Your task to perform on an android device: Show the shopping cart on target. Search for jbl flip 4 on target, select the first entry, add it to the cart, then select checkout. Image 0: 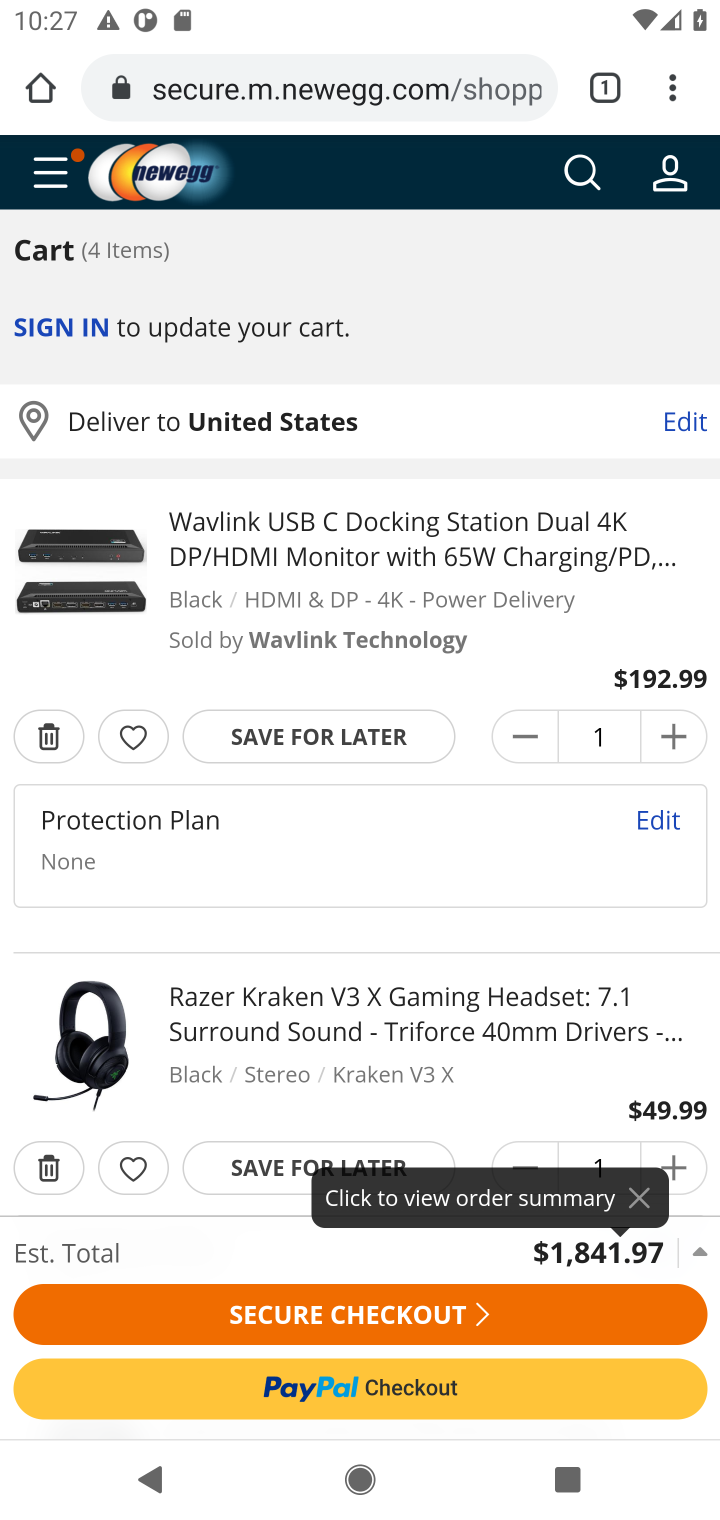
Step 0: press home button
Your task to perform on an android device: Show the shopping cart on target. Search for jbl flip 4 on target, select the first entry, add it to the cart, then select checkout. Image 1: 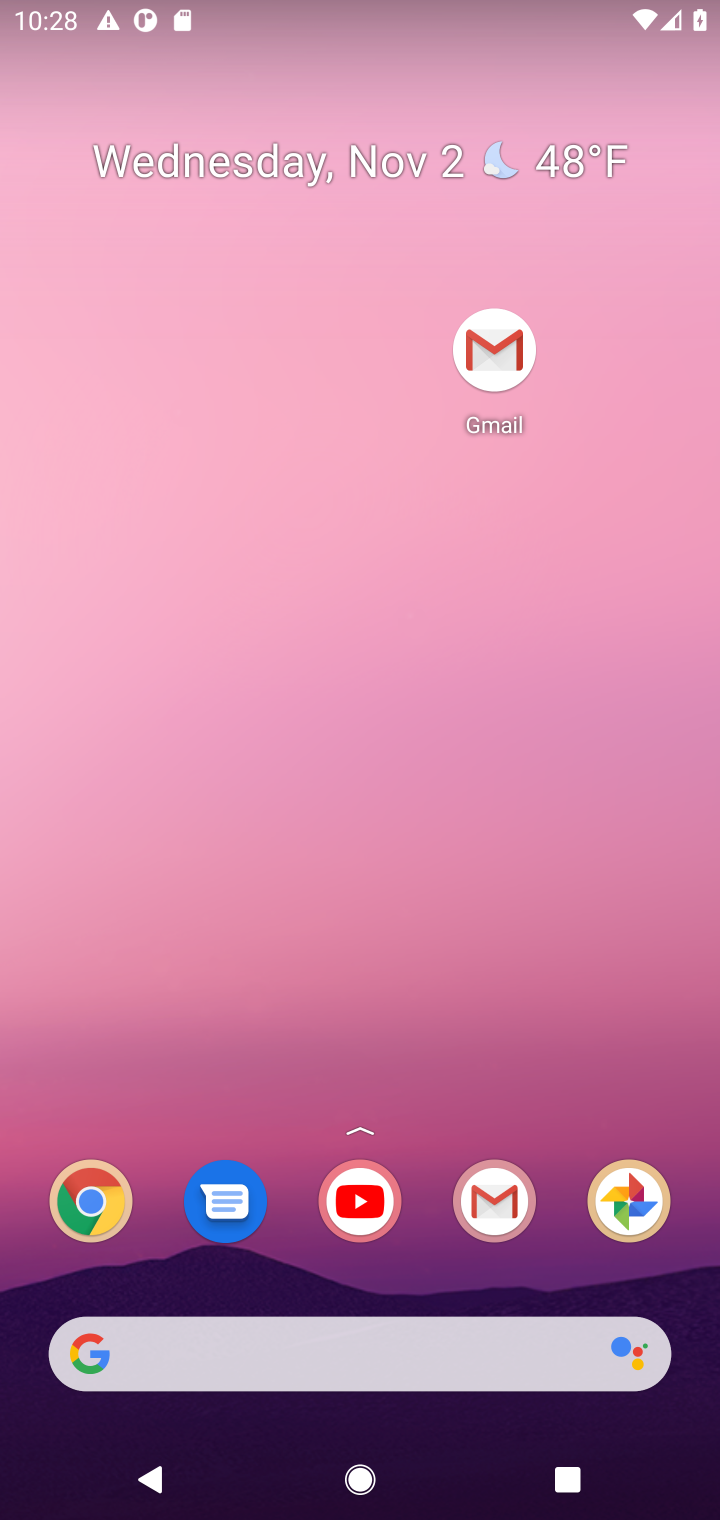
Step 1: drag from (430, 1285) to (348, 255)
Your task to perform on an android device: Show the shopping cart on target. Search for jbl flip 4 on target, select the first entry, add it to the cart, then select checkout. Image 2: 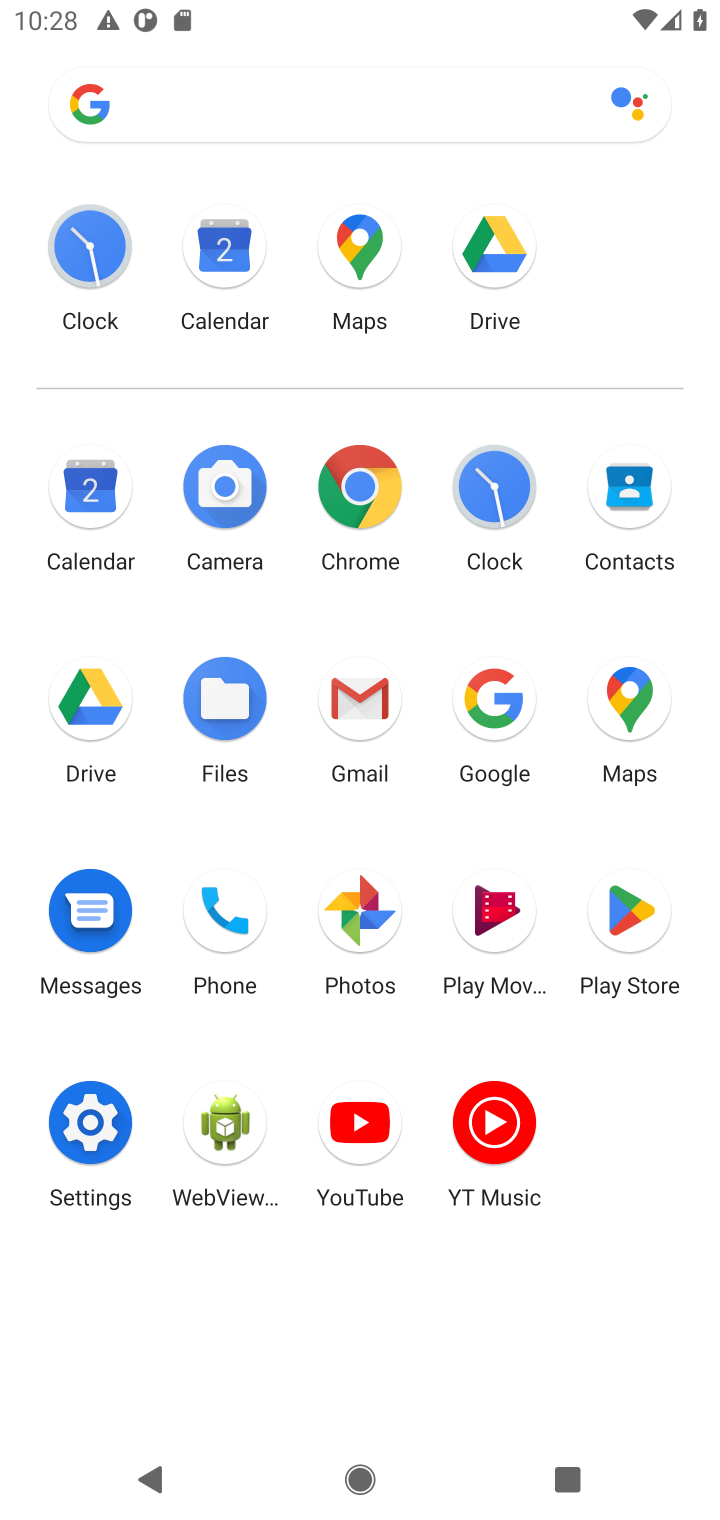
Step 2: click (371, 478)
Your task to perform on an android device: Show the shopping cart on target. Search for jbl flip 4 on target, select the first entry, add it to the cart, then select checkout. Image 3: 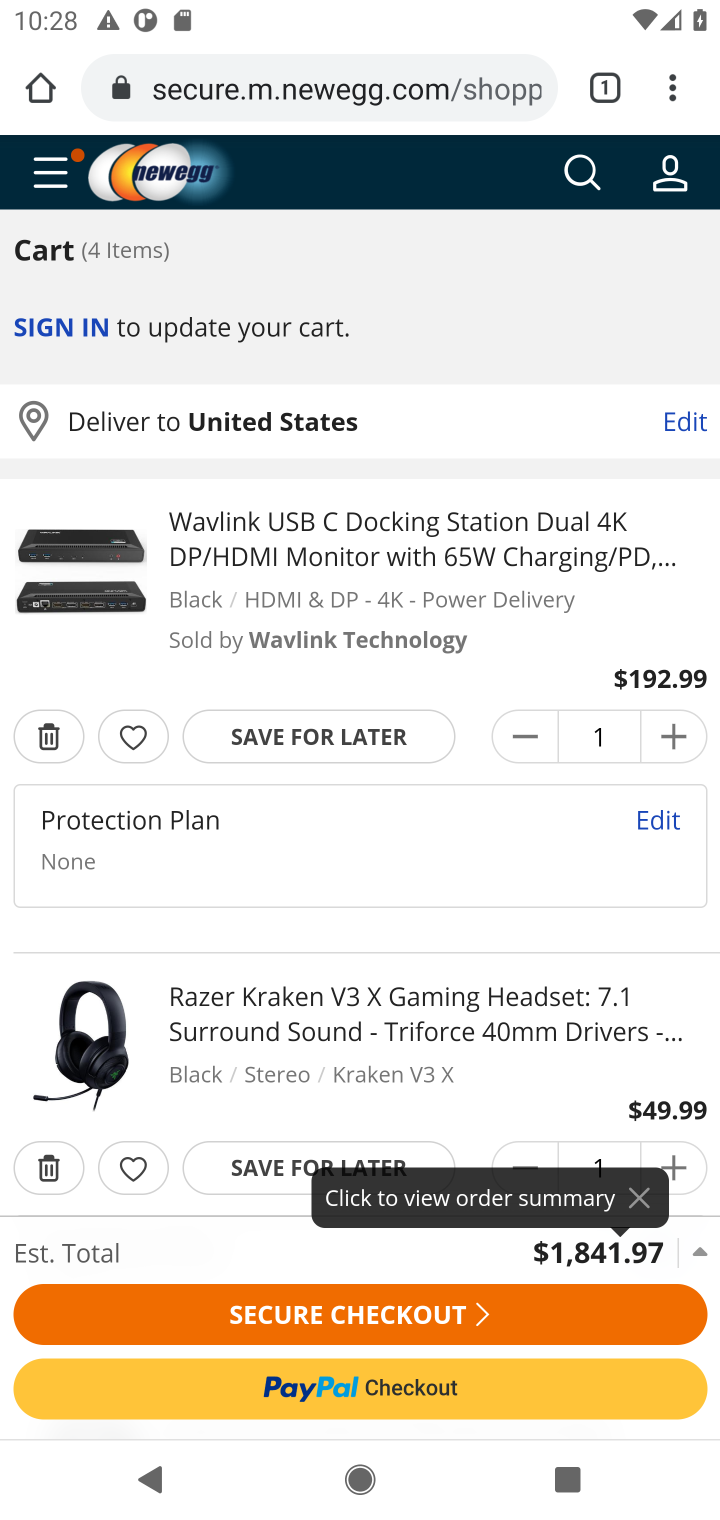
Step 3: click (355, 86)
Your task to perform on an android device: Show the shopping cart on target. Search for jbl flip 4 on target, select the first entry, add it to the cart, then select checkout. Image 4: 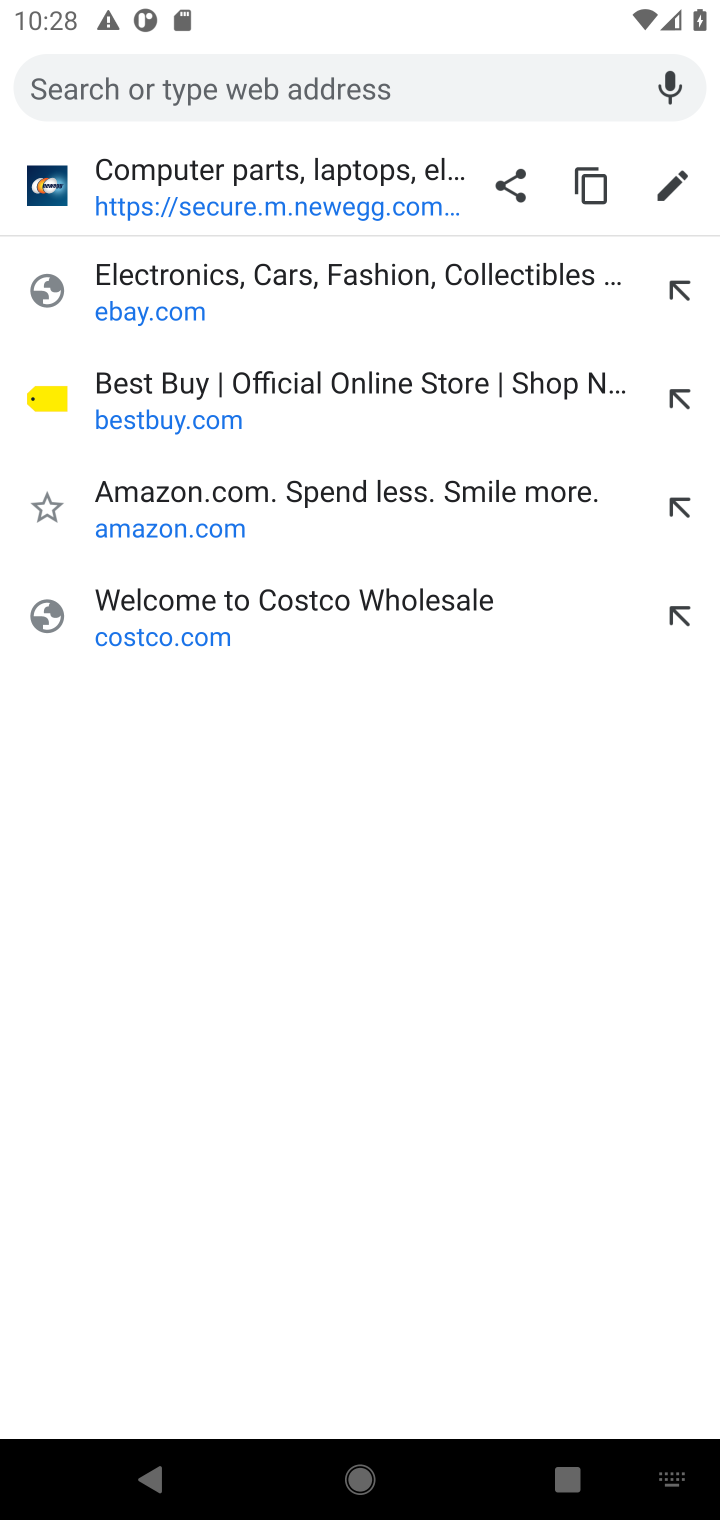
Step 4: type "target.com"
Your task to perform on an android device: Show the shopping cart on target. Search for jbl flip 4 on target, select the first entry, add it to the cart, then select checkout. Image 5: 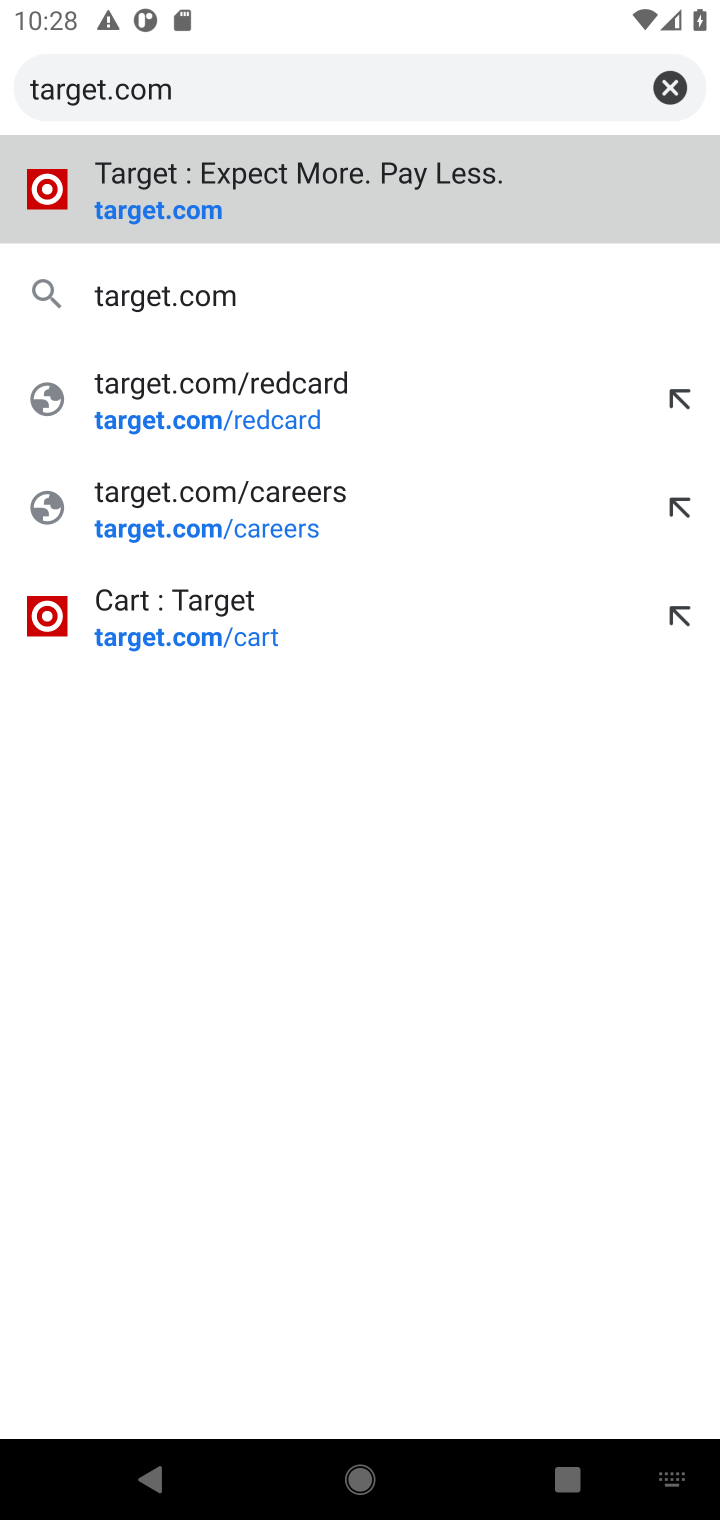
Step 5: press enter
Your task to perform on an android device: Show the shopping cart on target. Search for jbl flip 4 on target, select the first entry, add it to the cart, then select checkout. Image 6: 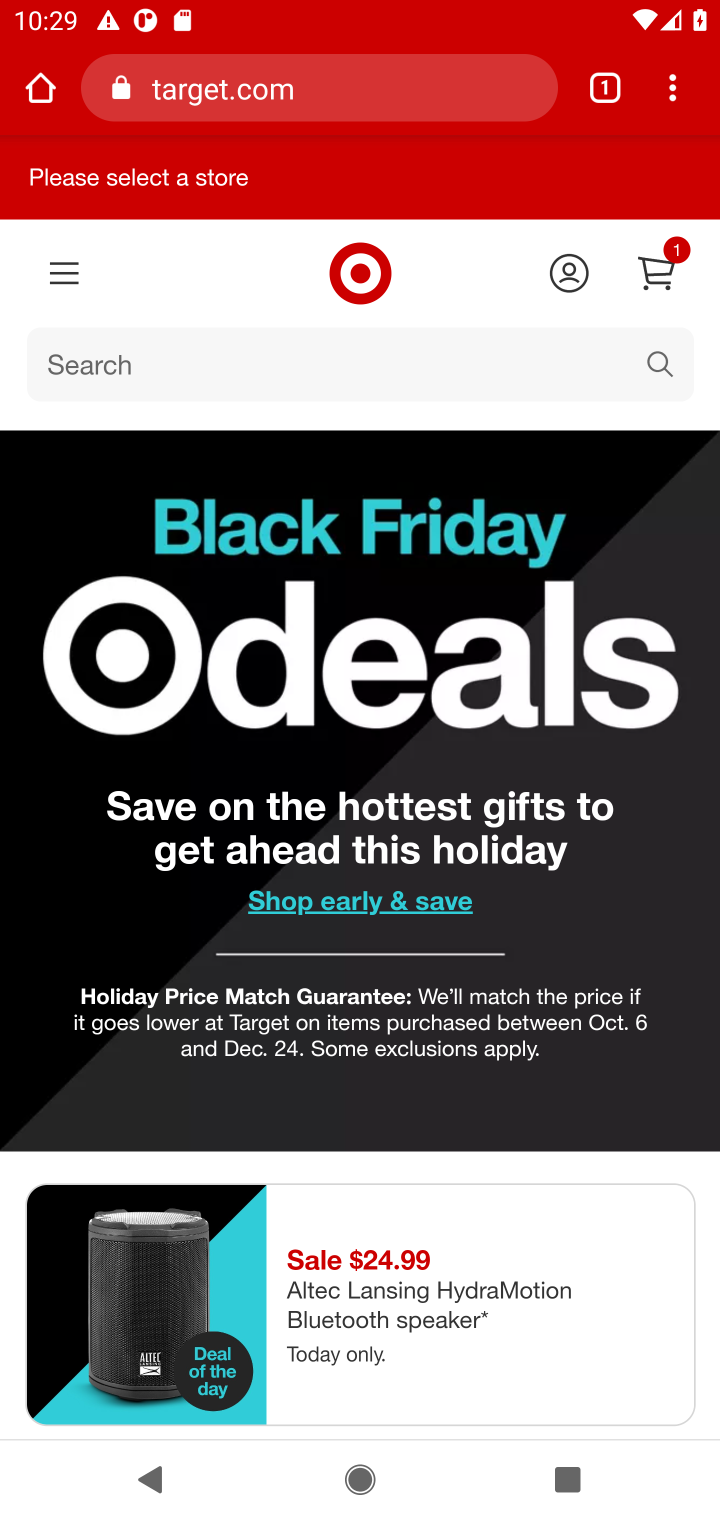
Step 6: drag from (602, 1263) to (496, 480)
Your task to perform on an android device: Show the shopping cart on target. Search for jbl flip 4 on target, select the first entry, add it to the cart, then select checkout. Image 7: 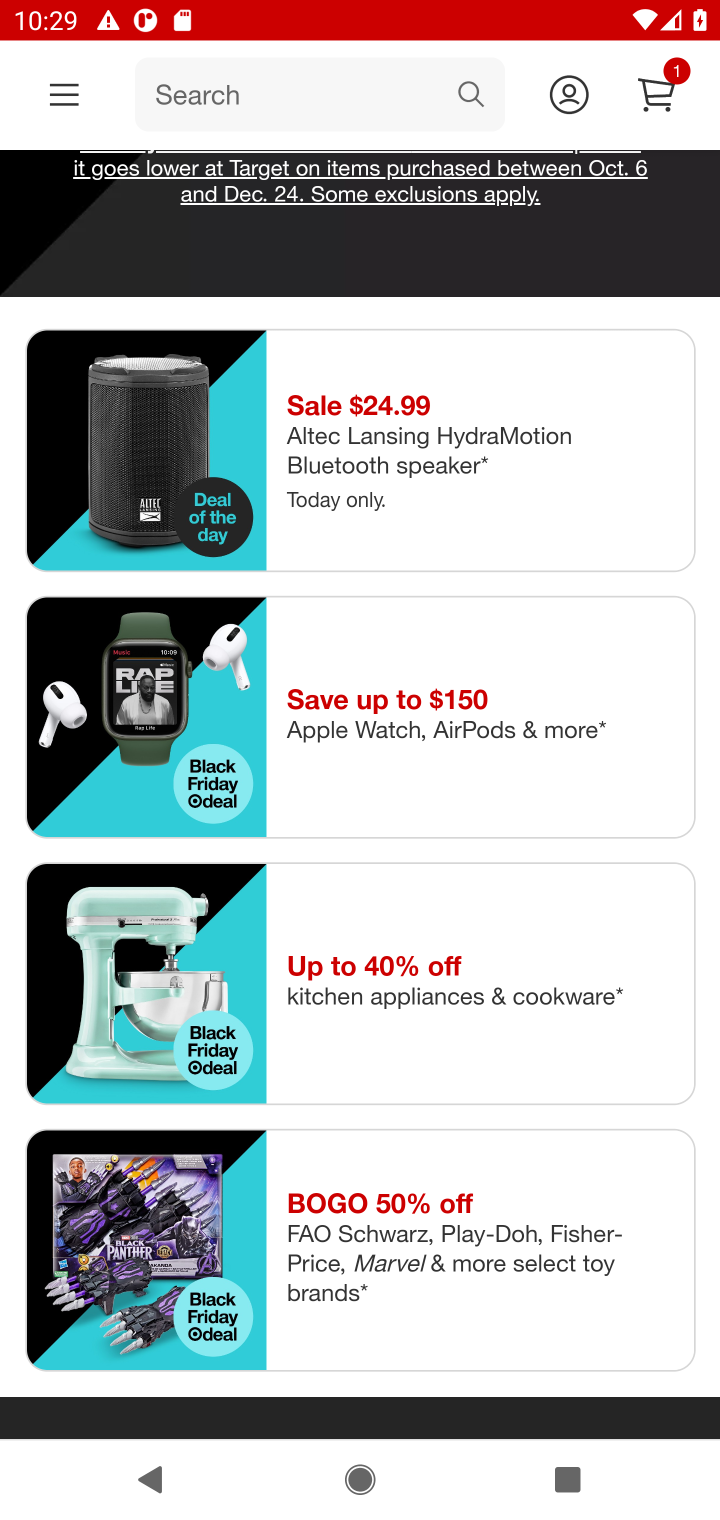
Step 7: drag from (558, 1236) to (522, 346)
Your task to perform on an android device: Show the shopping cart on target. Search for jbl flip 4 on target, select the first entry, add it to the cart, then select checkout. Image 8: 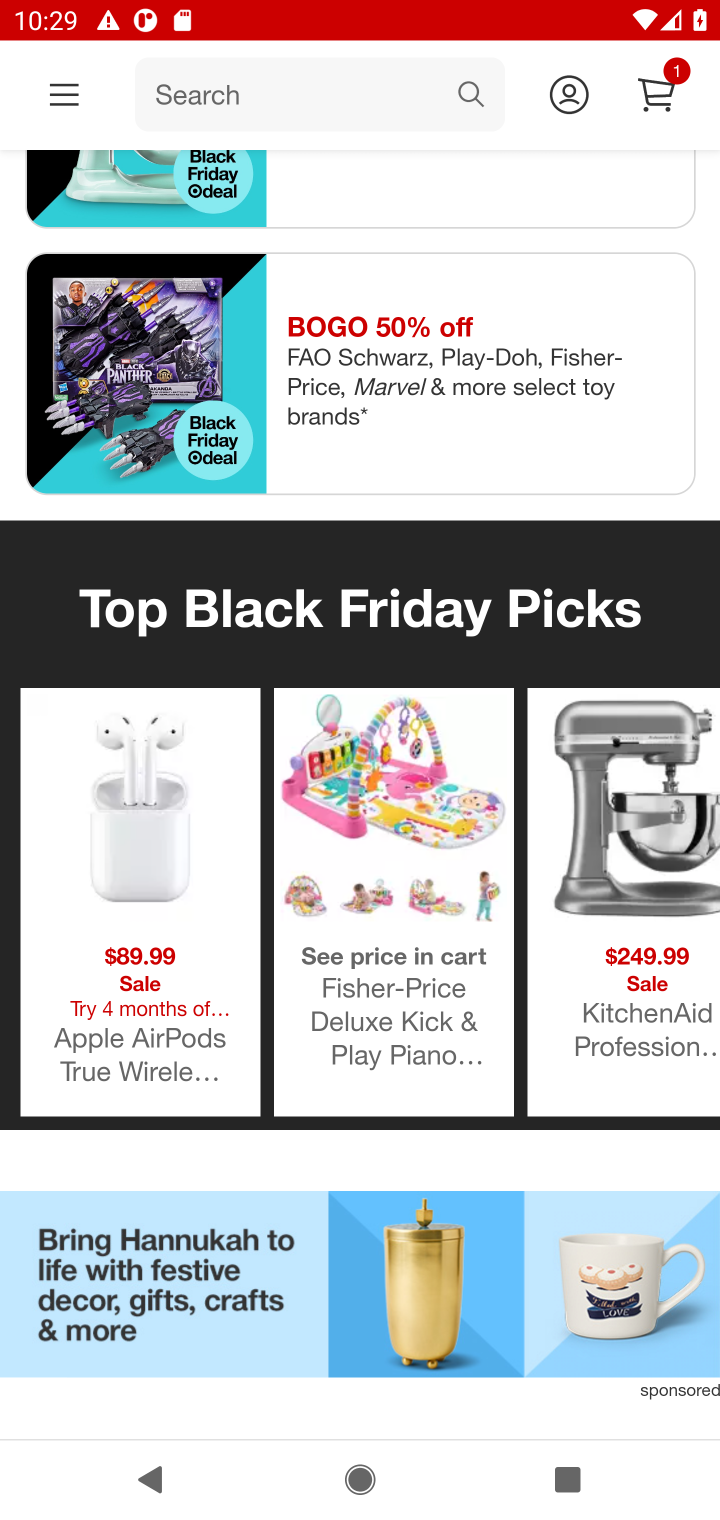
Step 8: drag from (486, 1166) to (394, 549)
Your task to perform on an android device: Show the shopping cart on target. Search for jbl flip 4 on target, select the first entry, add it to the cart, then select checkout. Image 9: 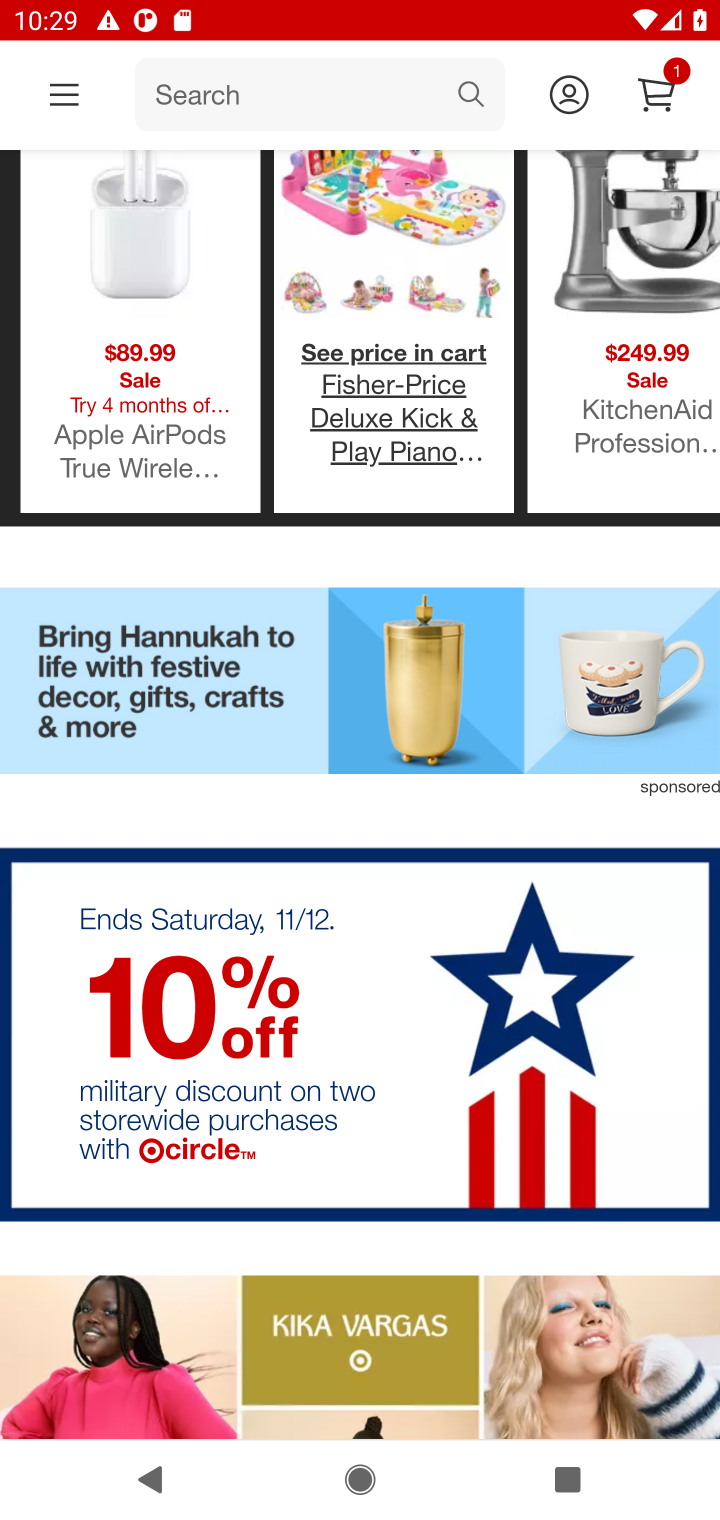
Step 9: drag from (428, 436) to (415, 1421)
Your task to perform on an android device: Show the shopping cart on target. Search for jbl flip 4 on target, select the first entry, add it to the cart, then select checkout. Image 10: 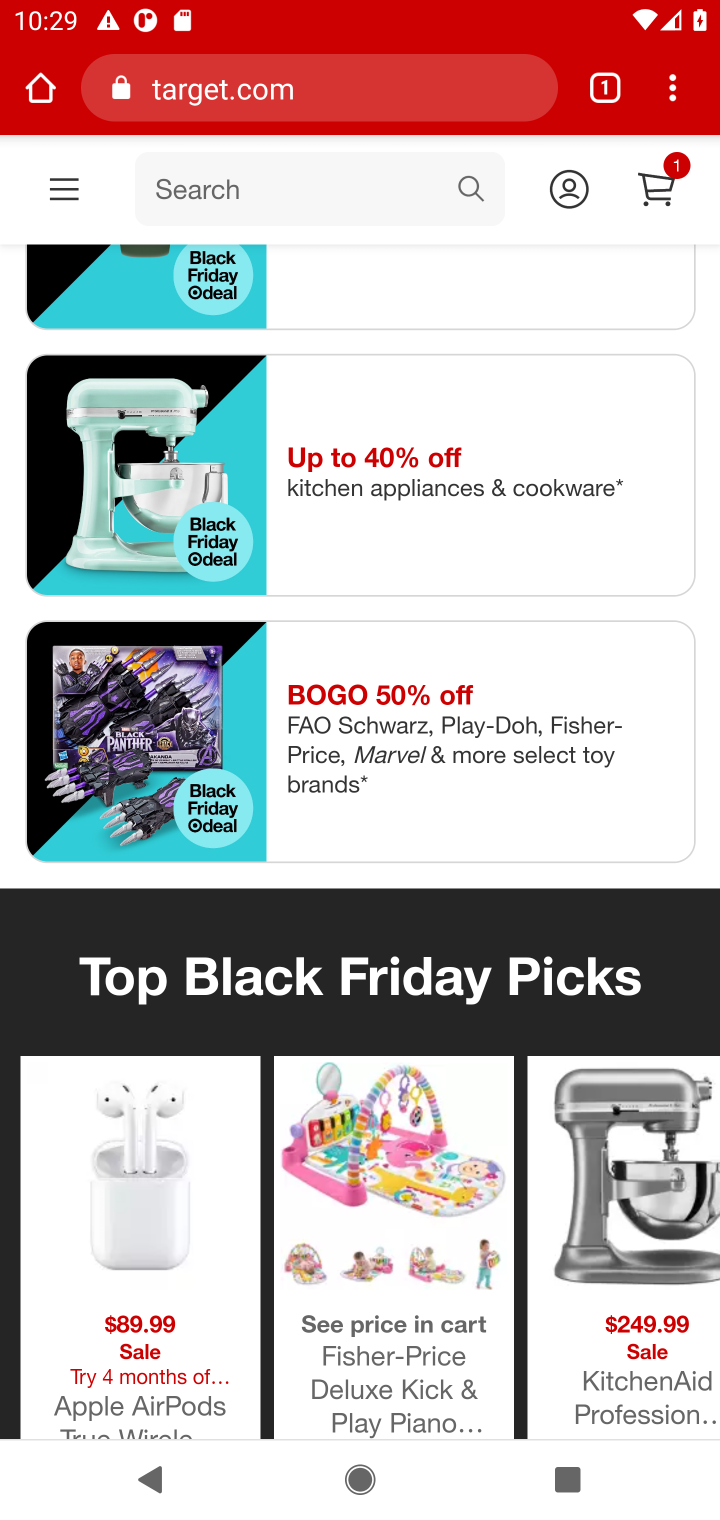
Step 10: click (316, 167)
Your task to perform on an android device: Show the shopping cart on target. Search for jbl flip 4 on target, select the first entry, add it to the cart, then select checkout. Image 11: 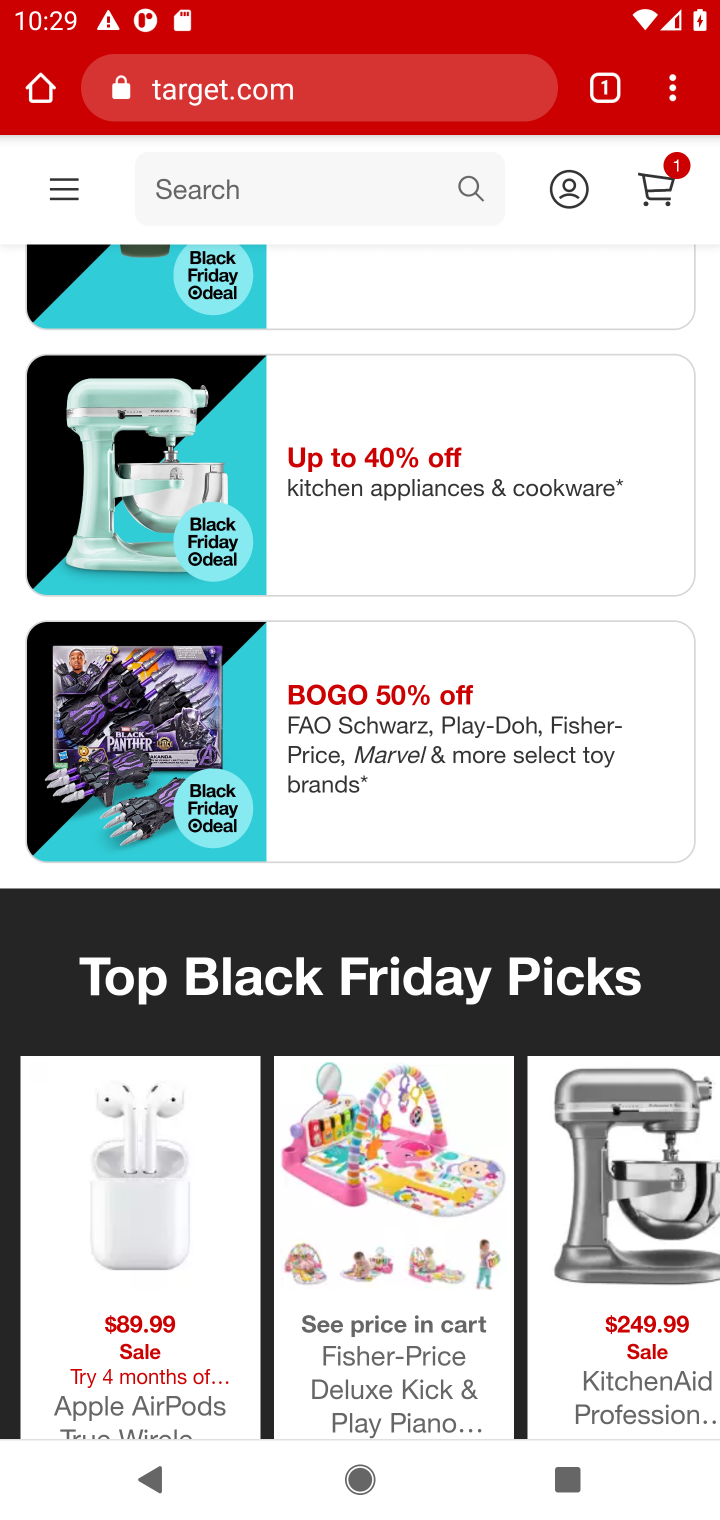
Step 11: click (352, 174)
Your task to perform on an android device: Show the shopping cart on target. Search for jbl flip 4 on target, select the first entry, add it to the cart, then select checkout. Image 12: 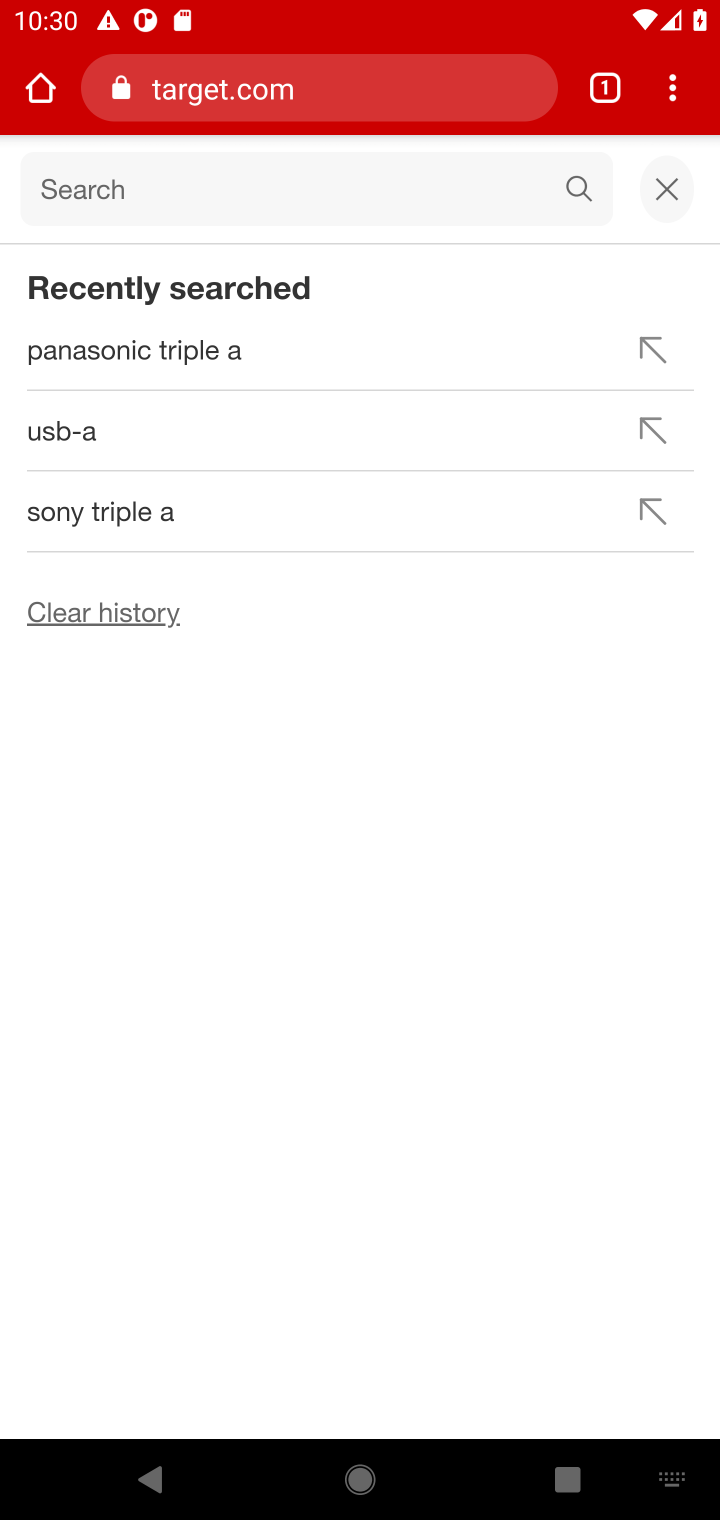
Step 12: type "jbl flip 4"
Your task to perform on an android device: Show the shopping cart on target. Search for jbl flip 4 on target, select the first entry, add it to the cart, then select checkout. Image 13: 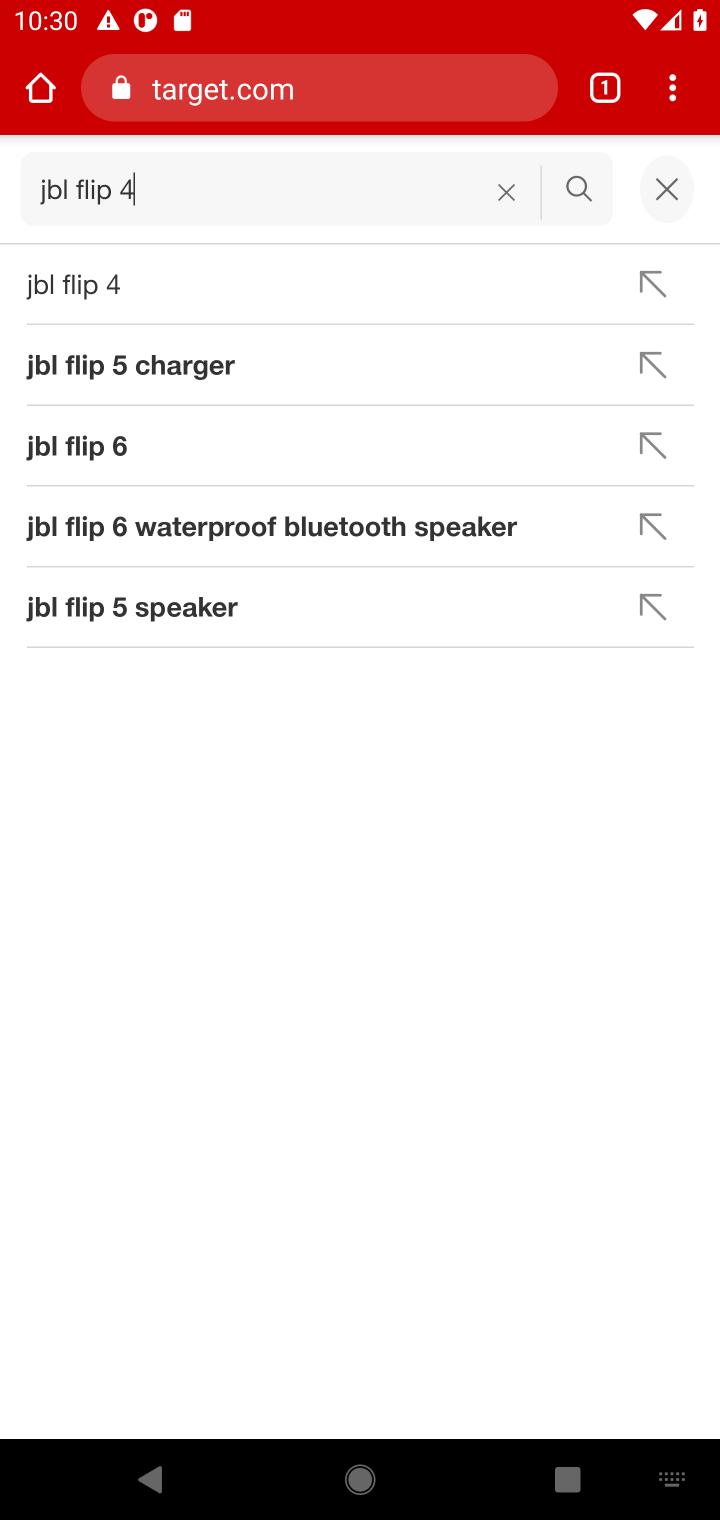
Step 13: press enter
Your task to perform on an android device: Show the shopping cart on target. Search for jbl flip 4 on target, select the first entry, add it to the cart, then select checkout. Image 14: 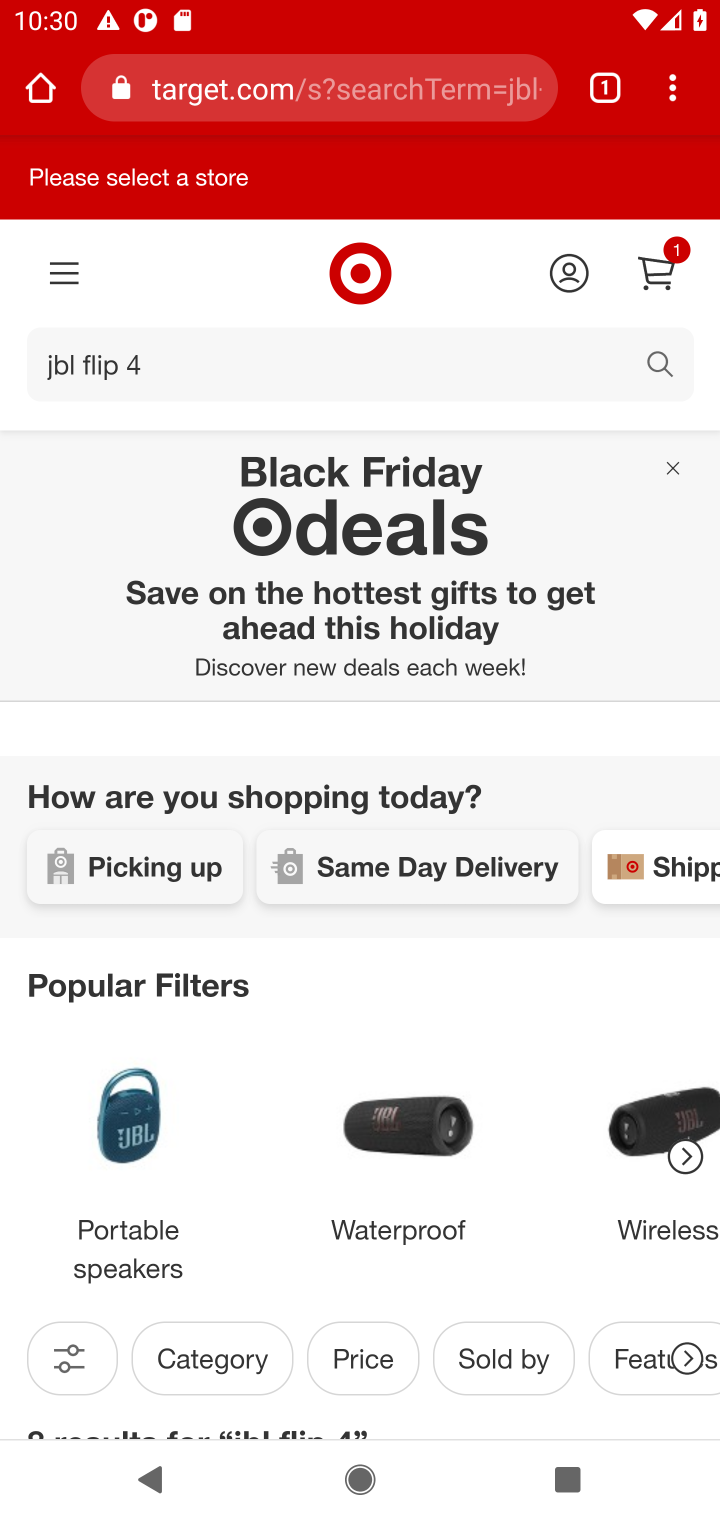
Step 14: drag from (465, 1326) to (361, 454)
Your task to perform on an android device: Show the shopping cart on target. Search for jbl flip 4 on target, select the first entry, add it to the cart, then select checkout. Image 15: 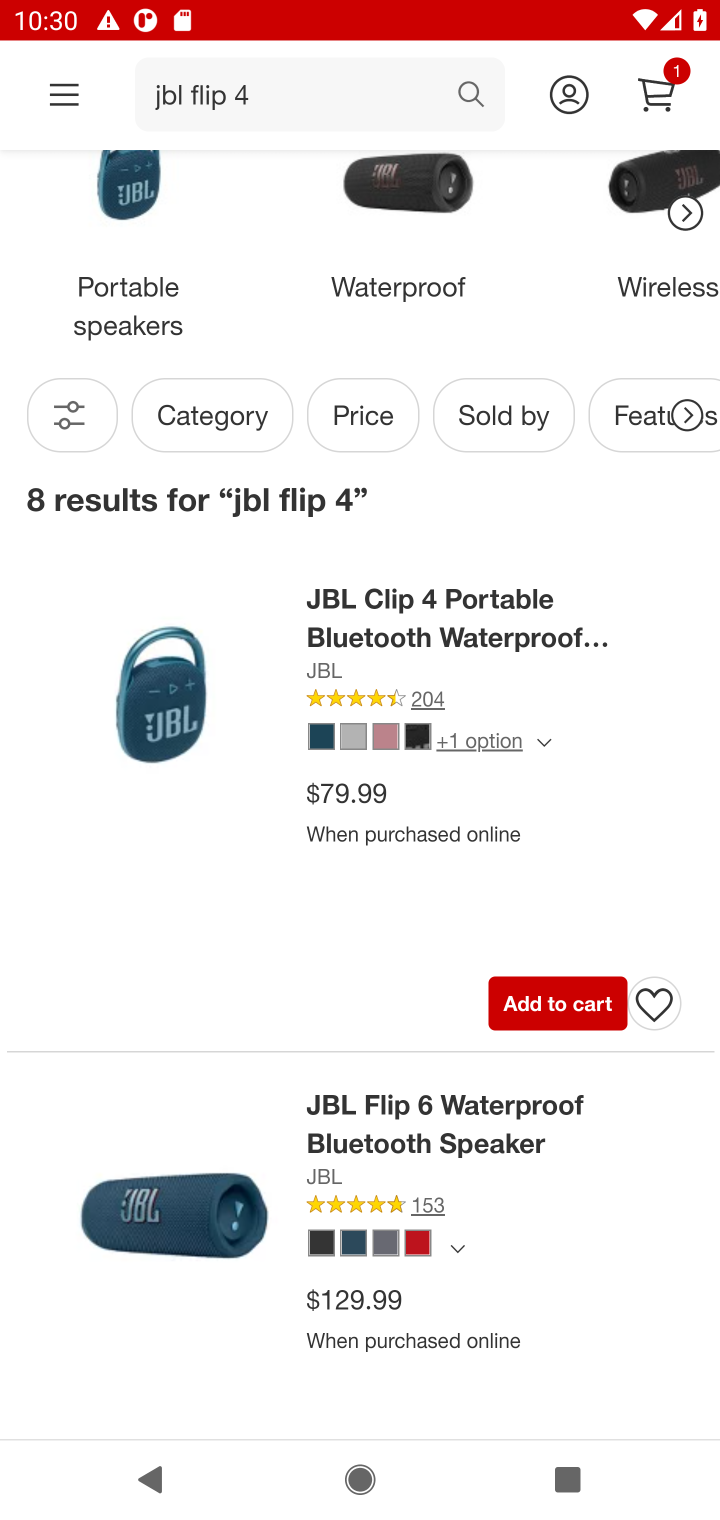
Step 15: drag from (350, 1057) to (391, 440)
Your task to perform on an android device: Show the shopping cart on target. Search for jbl flip 4 on target, select the first entry, add it to the cart, then select checkout. Image 16: 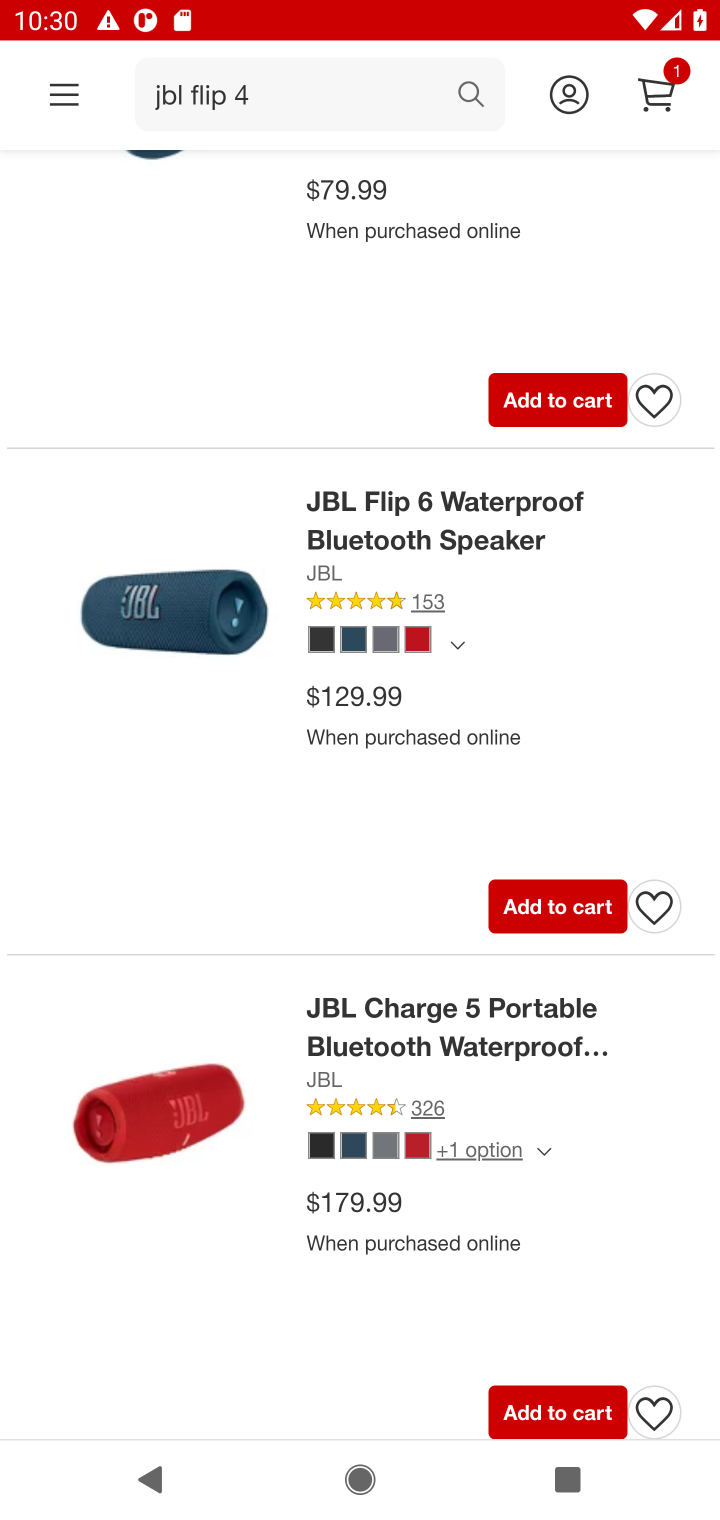
Step 16: drag from (568, 1184) to (520, 532)
Your task to perform on an android device: Show the shopping cart on target. Search for jbl flip 4 on target, select the first entry, add it to the cart, then select checkout. Image 17: 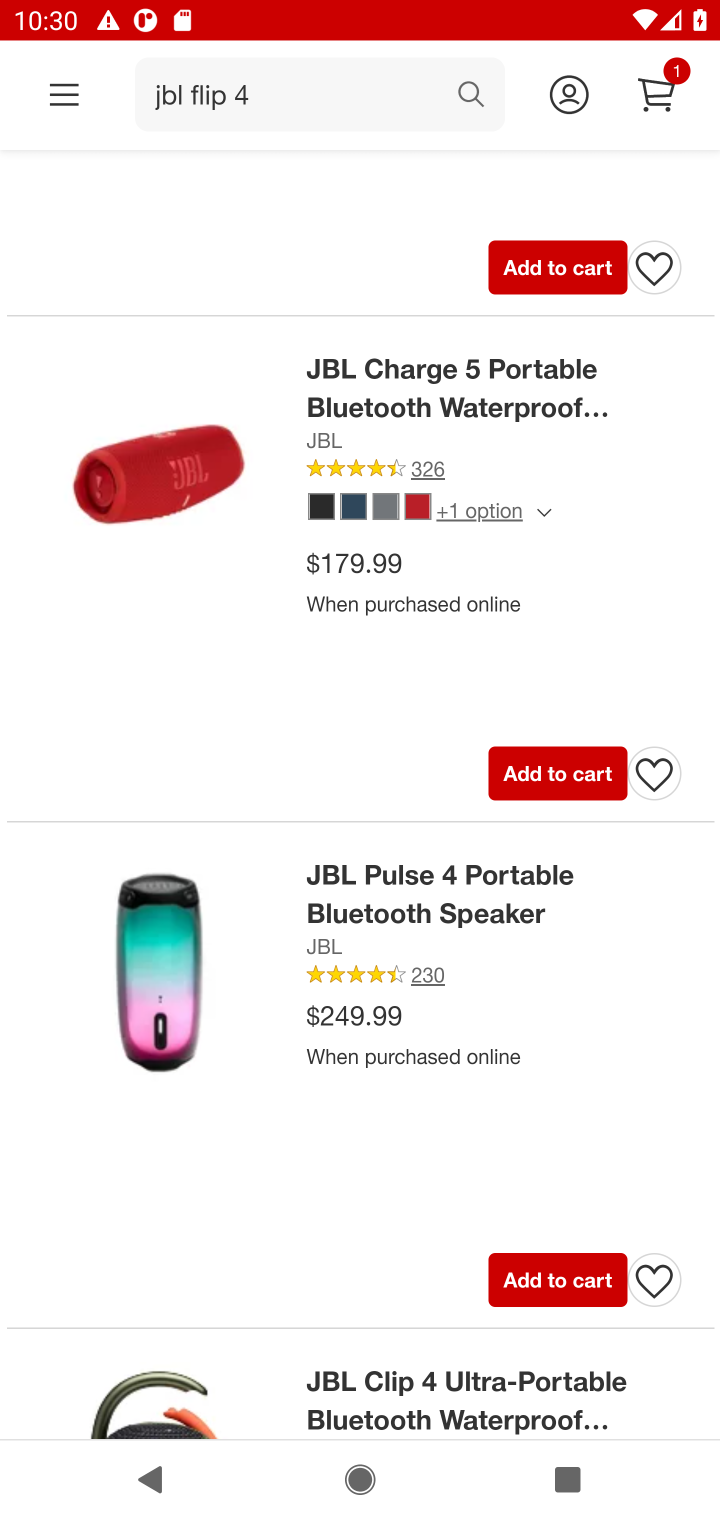
Step 17: drag from (344, 1105) to (346, 756)
Your task to perform on an android device: Show the shopping cart on target. Search for jbl flip 4 on target, select the first entry, add it to the cart, then select checkout. Image 18: 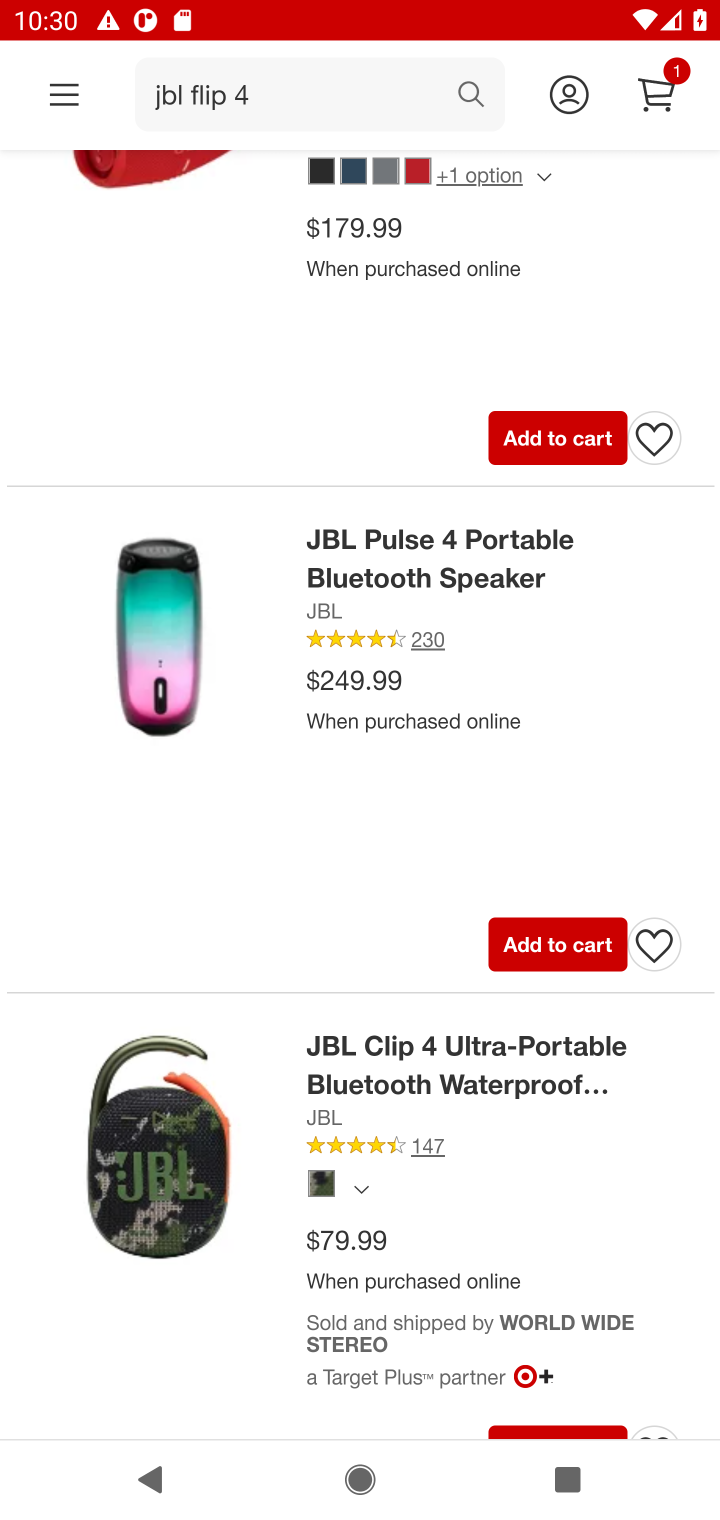
Step 18: click (393, 1076)
Your task to perform on an android device: Show the shopping cart on target. Search for jbl flip 4 on target, select the first entry, add it to the cart, then select checkout. Image 19: 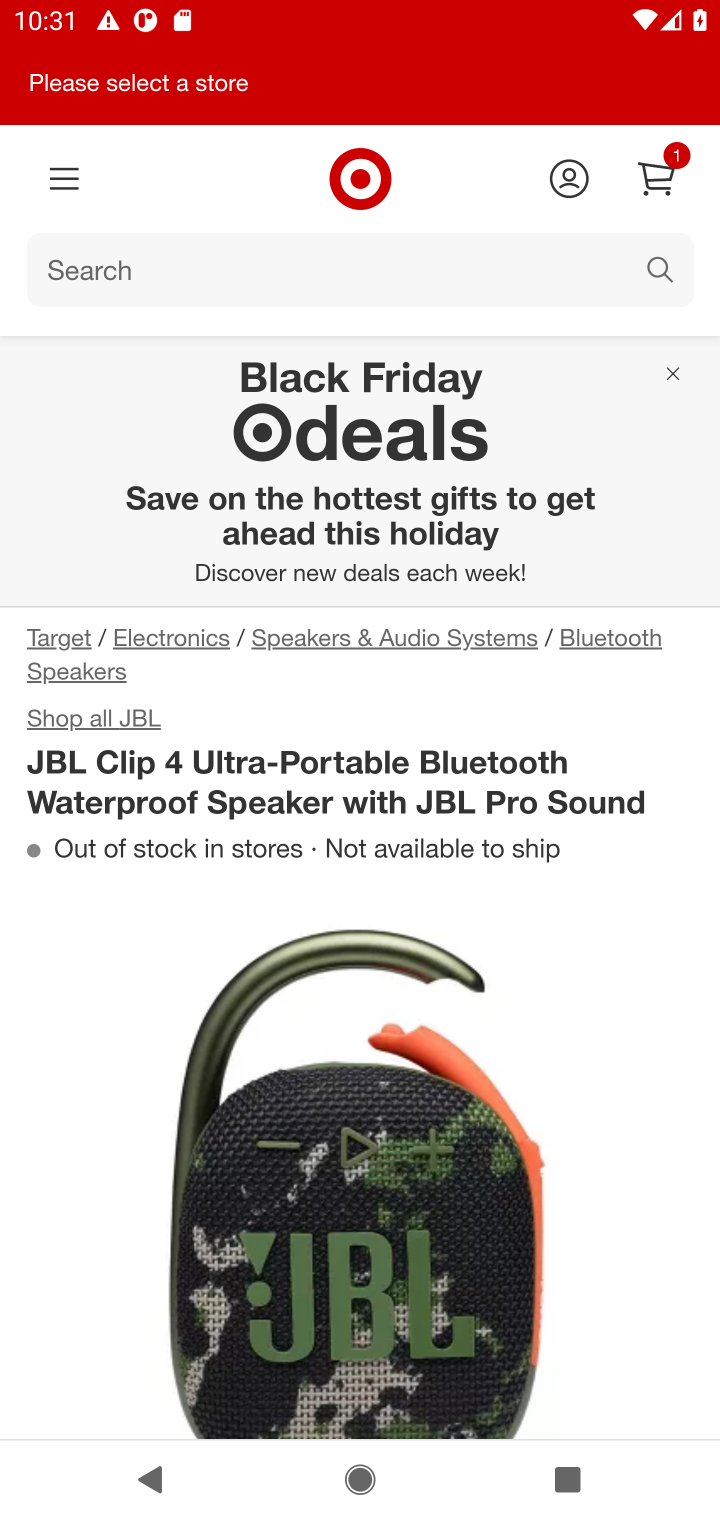
Step 19: drag from (377, 1164) to (420, 328)
Your task to perform on an android device: Show the shopping cart on target. Search for jbl flip 4 on target, select the first entry, add it to the cart, then select checkout. Image 20: 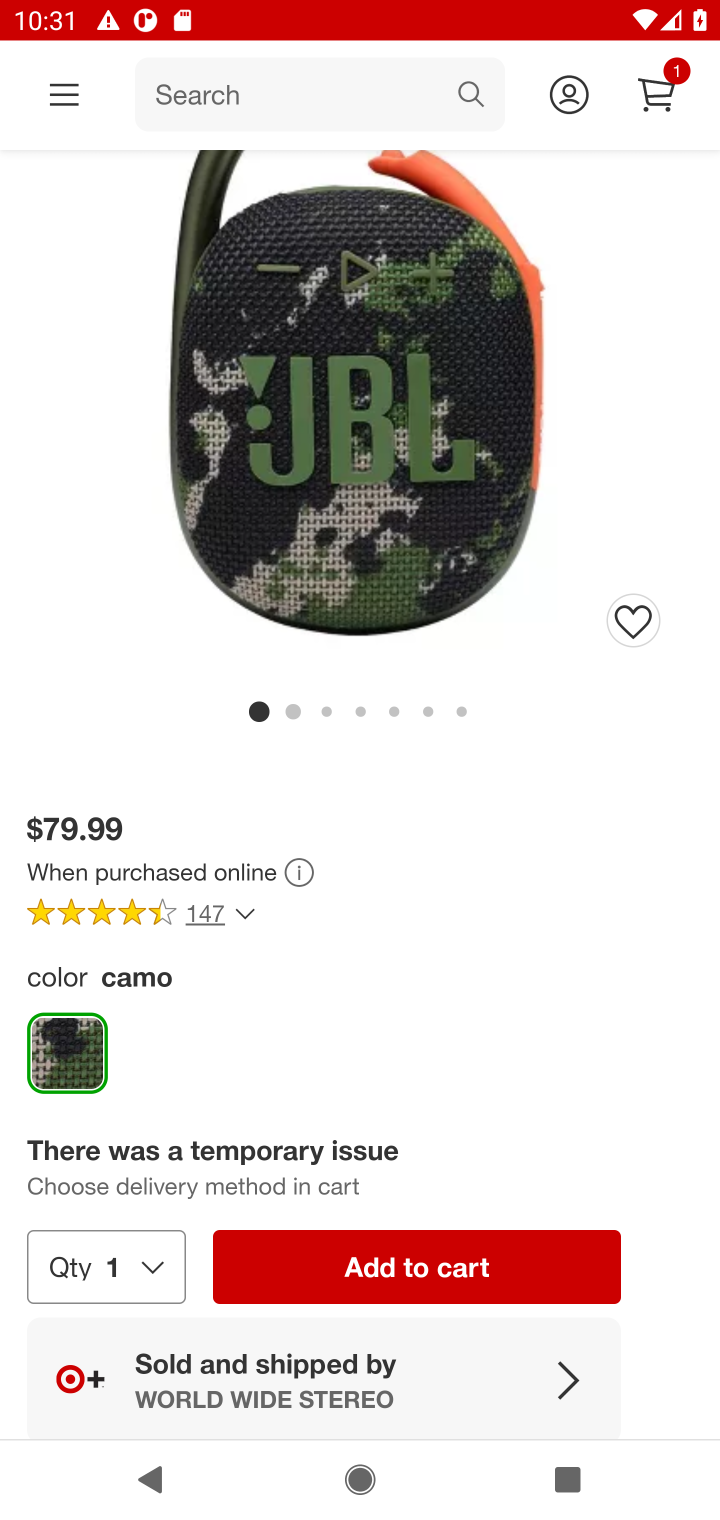
Step 20: click (449, 1263)
Your task to perform on an android device: Show the shopping cart on target. Search for jbl flip 4 on target, select the first entry, add it to the cart, then select checkout. Image 21: 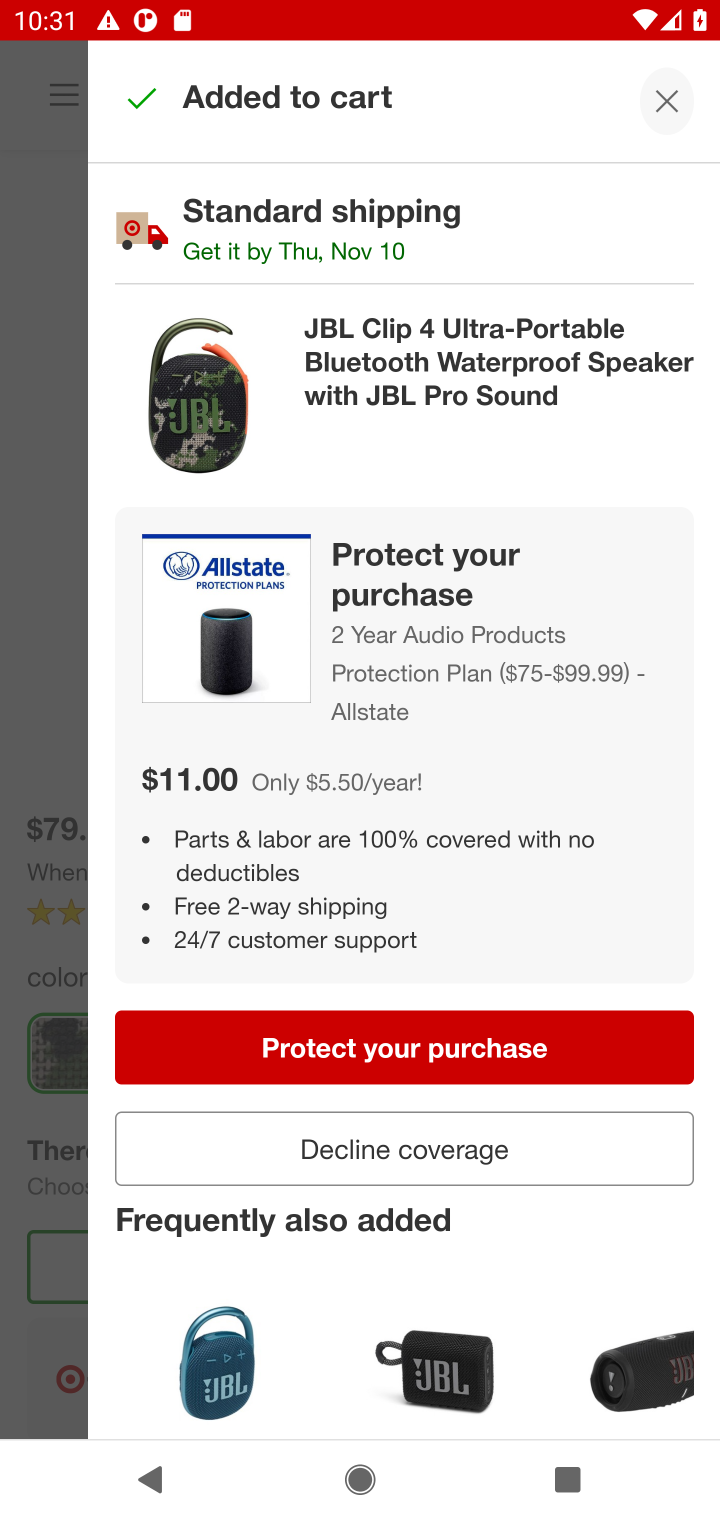
Step 21: click (440, 1139)
Your task to perform on an android device: Show the shopping cart on target. Search for jbl flip 4 on target, select the first entry, add it to the cart, then select checkout. Image 22: 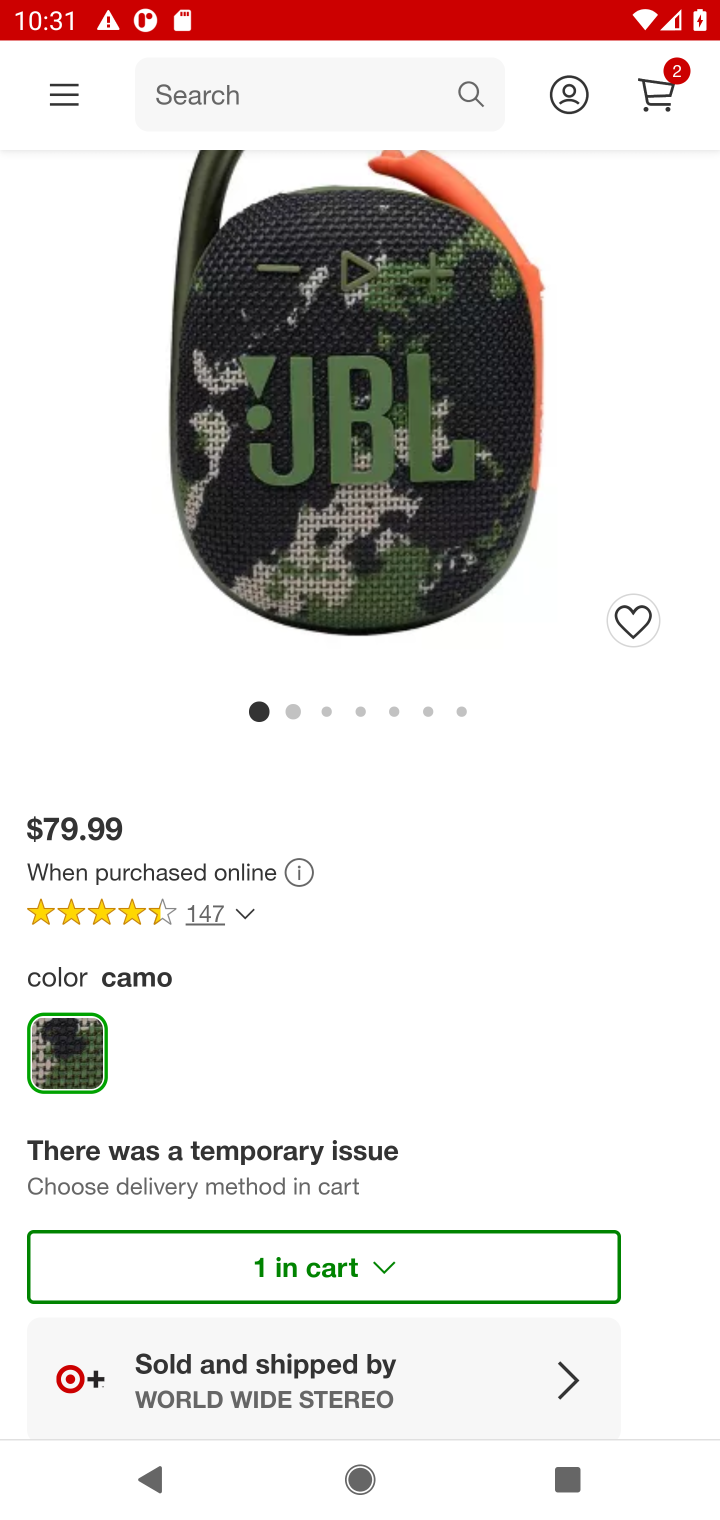
Step 22: click (652, 104)
Your task to perform on an android device: Show the shopping cart on target. Search for jbl flip 4 on target, select the first entry, add it to the cart, then select checkout. Image 23: 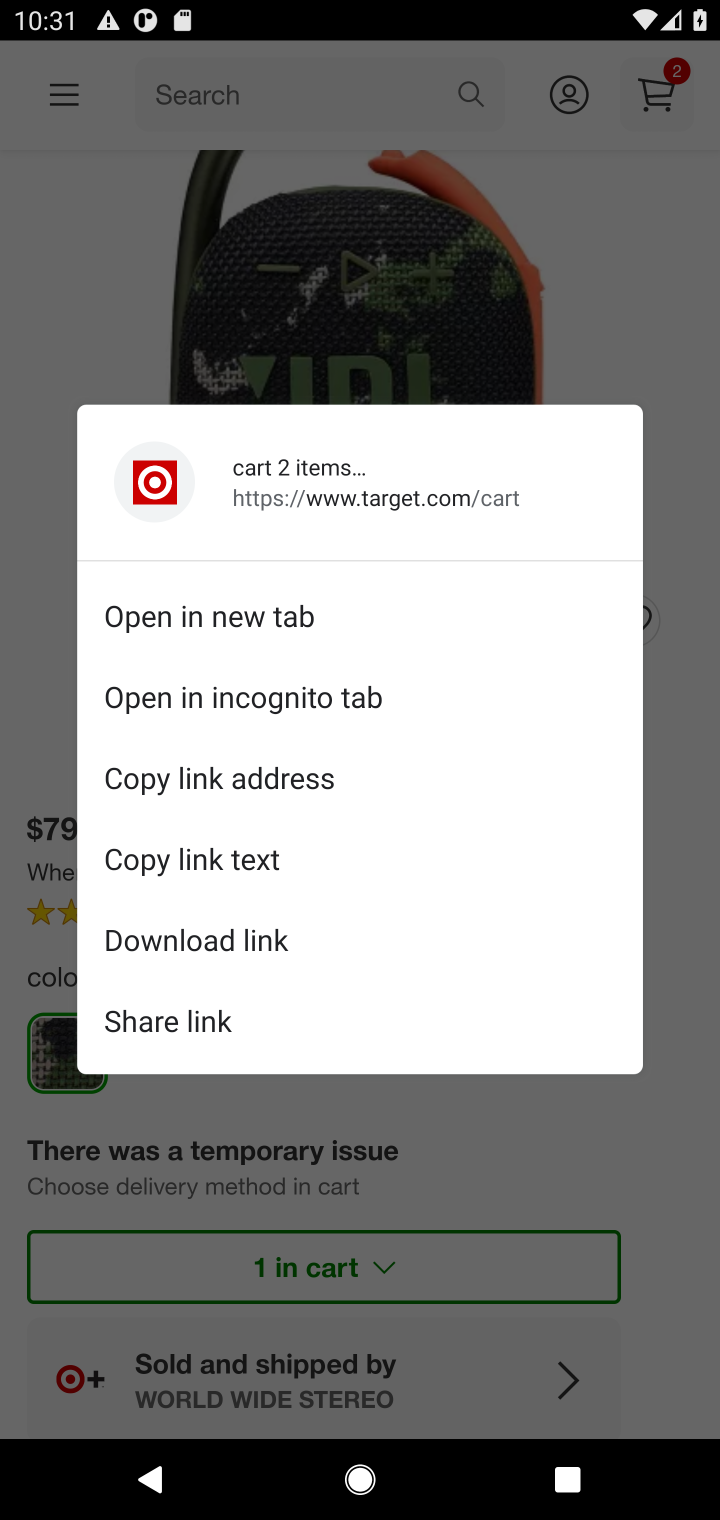
Step 23: click (199, 1284)
Your task to perform on an android device: Show the shopping cart on target. Search for jbl flip 4 on target, select the first entry, add it to the cart, then select checkout. Image 24: 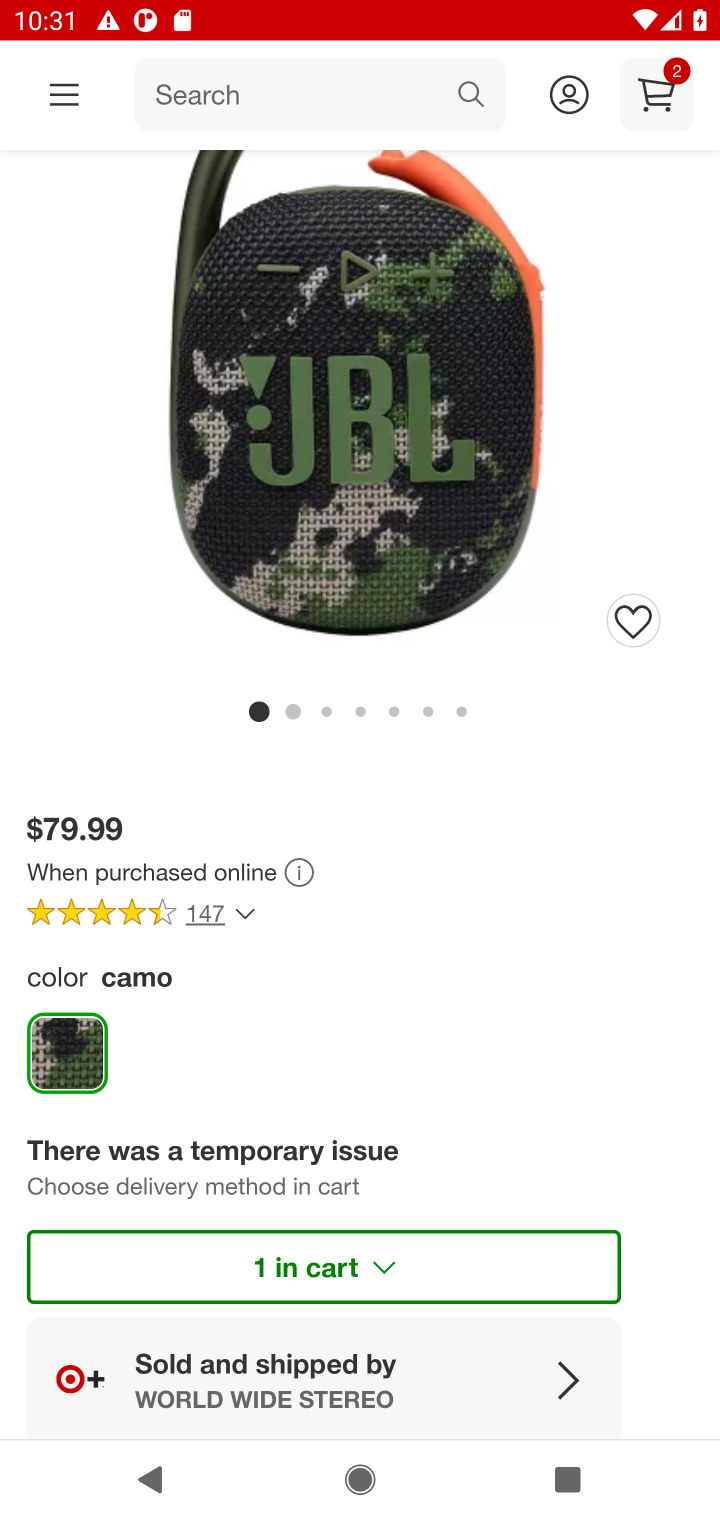
Step 24: click (680, 86)
Your task to perform on an android device: Show the shopping cart on target. Search for jbl flip 4 on target, select the first entry, add it to the cart, then select checkout. Image 25: 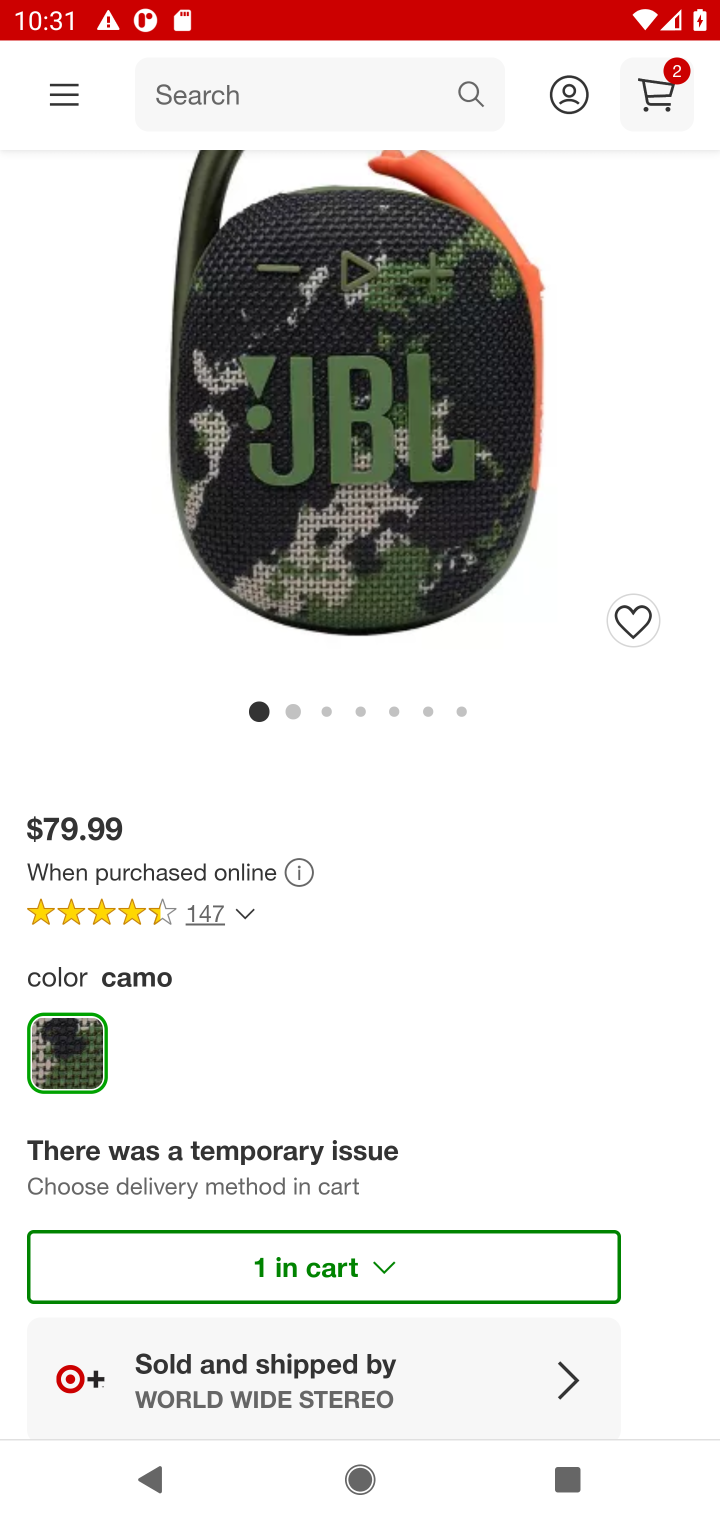
Step 25: click (680, 86)
Your task to perform on an android device: Show the shopping cart on target. Search for jbl flip 4 on target, select the first entry, add it to the cart, then select checkout. Image 26: 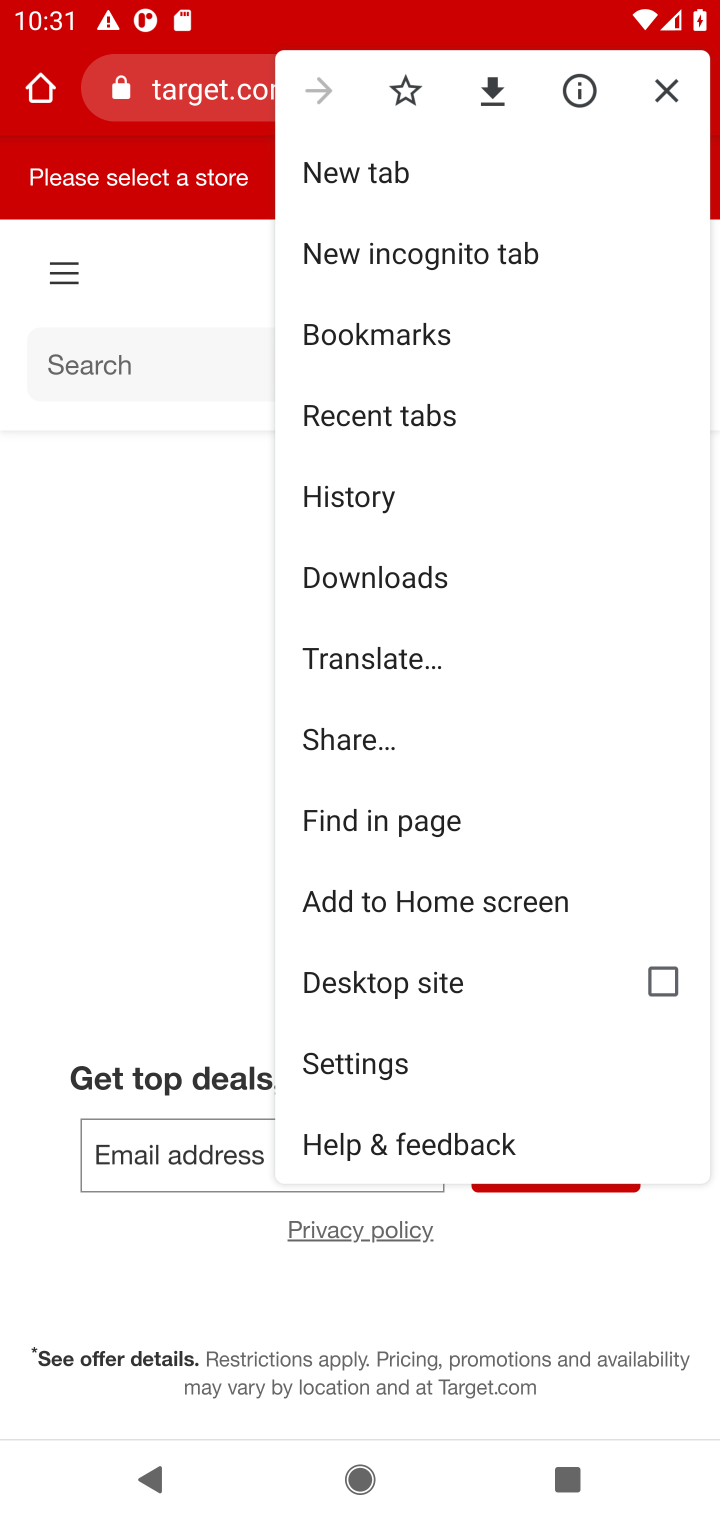
Step 26: click (189, 402)
Your task to perform on an android device: Show the shopping cart on target. Search for jbl flip 4 on target, select the first entry, add it to the cart, then select checkout. Image 27: 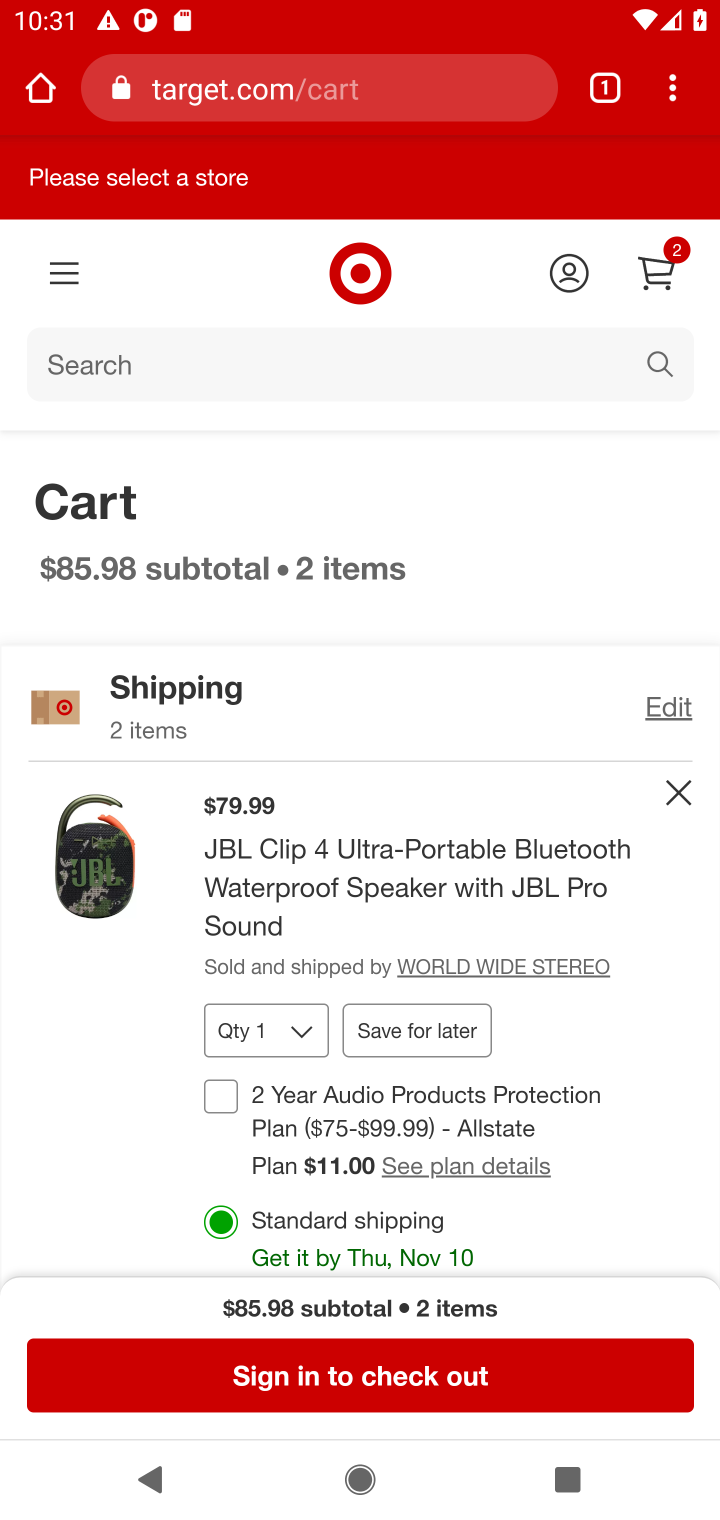
Step 27: click (416, 1366)
Your task to perform on an android device: Show the shopping cart on target. Search for jbl flip 4 on target, select the first entry, add it to the cart, then select checkout. Image 28: 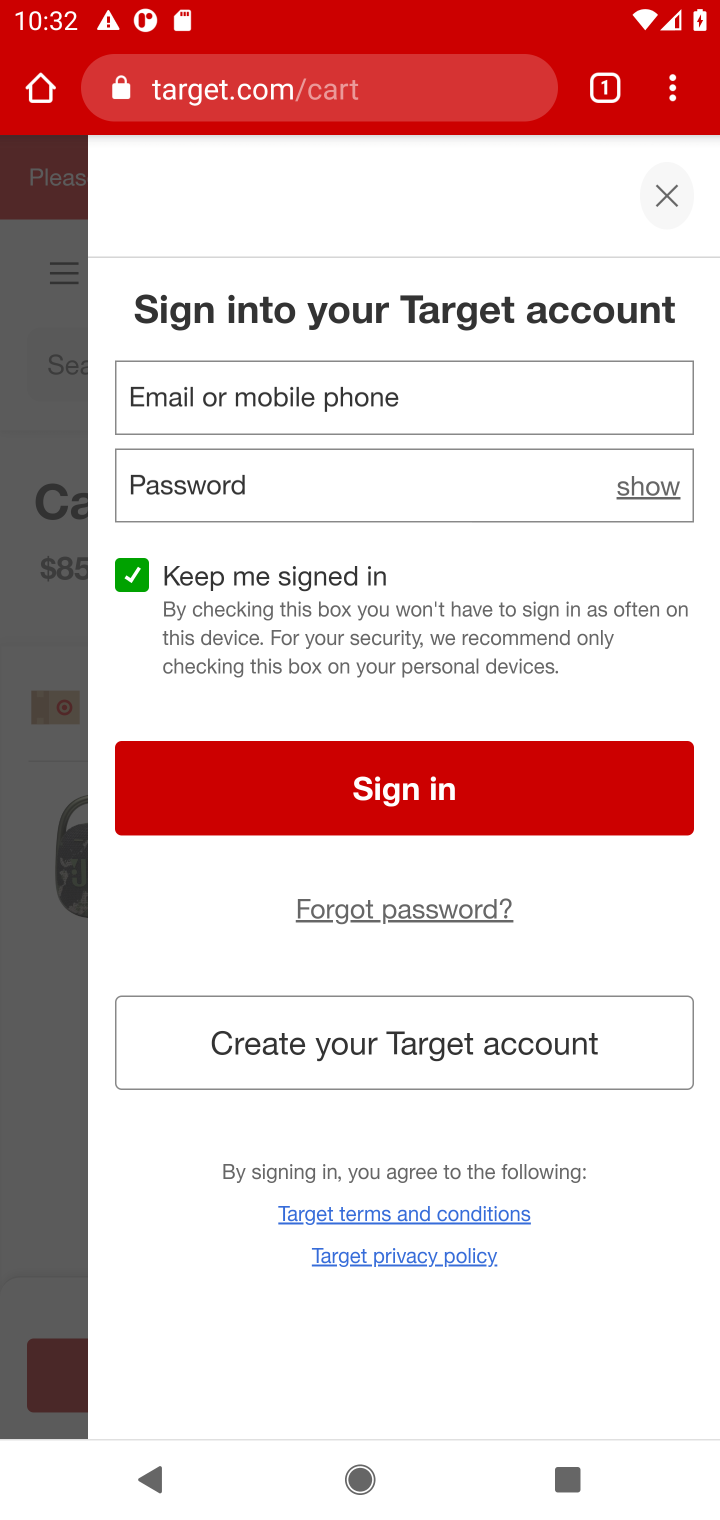
Step 28: task complete